Your task to perform on an android device: turn off picture-in-picture Image 0: 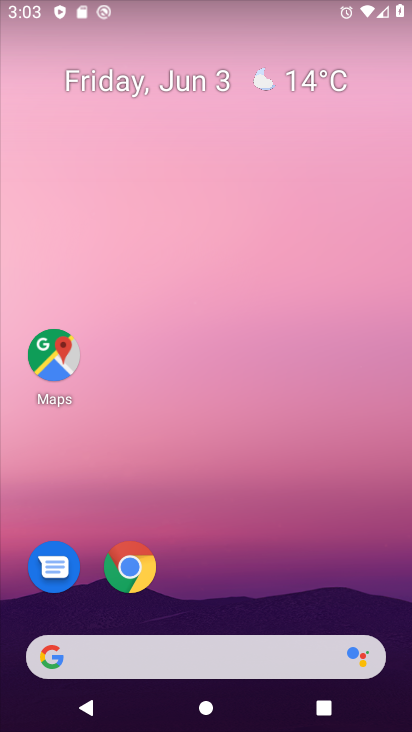
Step 0: drag from (231, 675) to (194, 45)
Your task to perform on an android device: turn off picture-in-picture Image 1: 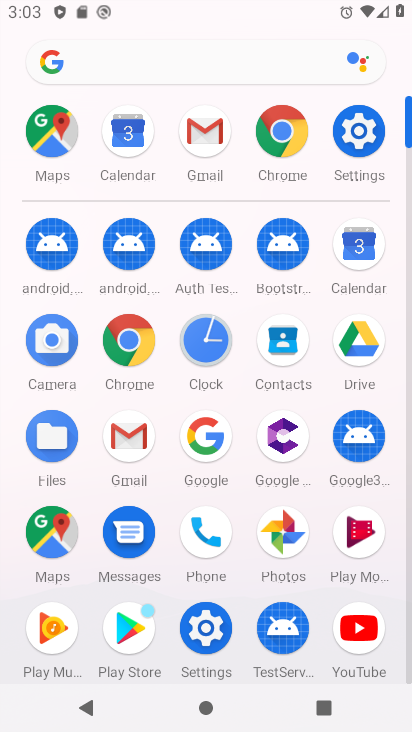
Step 1: click (209, 620)
Your task to perform on an android device: turn off picture-in-picture Image 2: 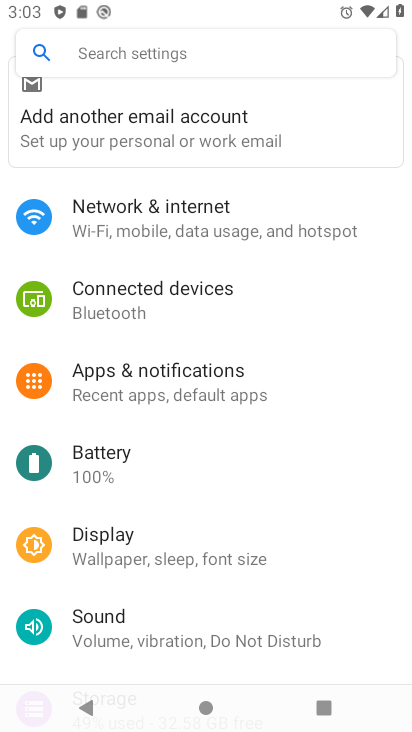
Step 2: click (196, 66)
Your task to perform on an android device: turn off picture-in-picture Image 3: 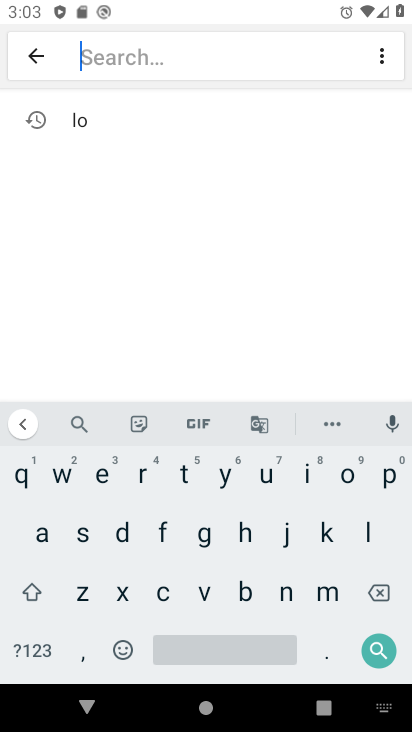
Step 3: click (394, 475)
Your task to perform on an android device: turn off picture-in-picture Image 4: 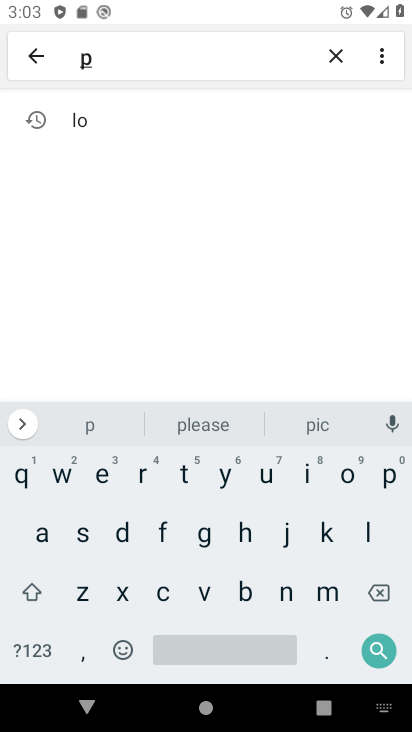
Step 4: click (308, 469)
Your task to perform on an android device: turn off picture-in-picture Image 5: 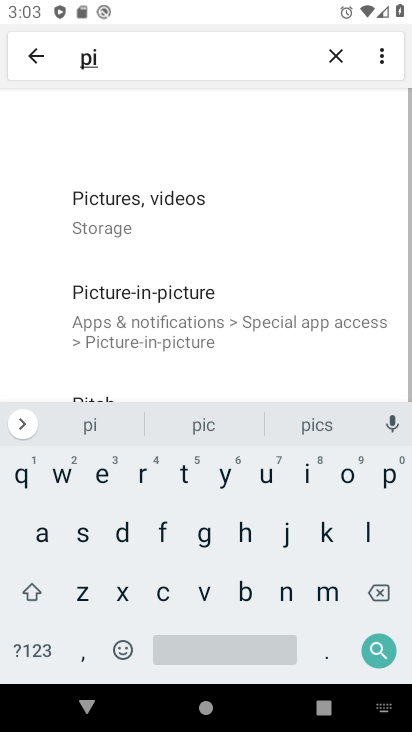
Step 5: click (159, 593)
Your task to perform on an android device: turn off picture-in-picture Image 6: 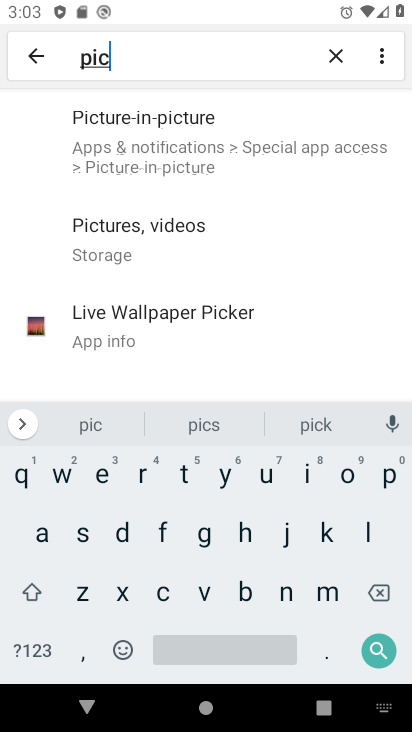
Step 6: click (163, 159)
Your task to perform on an android device: turn off picture-in-picture Image 7: 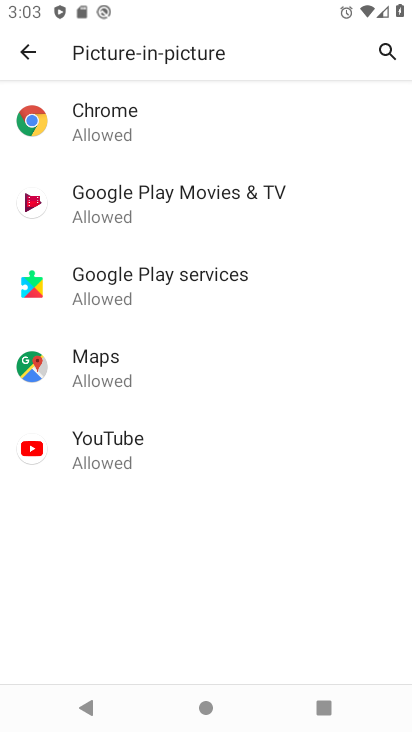
Step 7: task complete